Your task to perform on an android device: stop showing notifications on the lock screen Image 0: 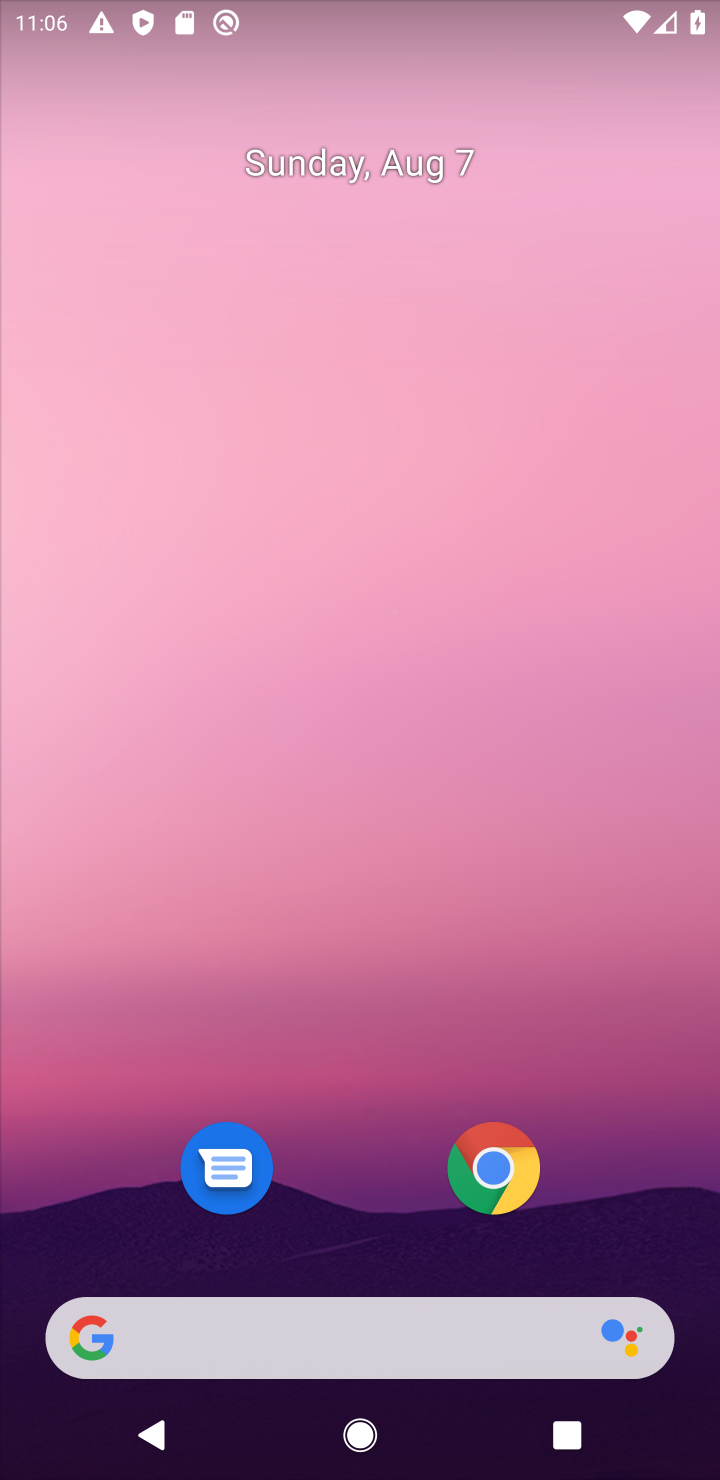
Step 0: drag from (77, 1365) to (218, 863)
Your task to perform on an android device: stop showing notifications on the lock screen Image 1: 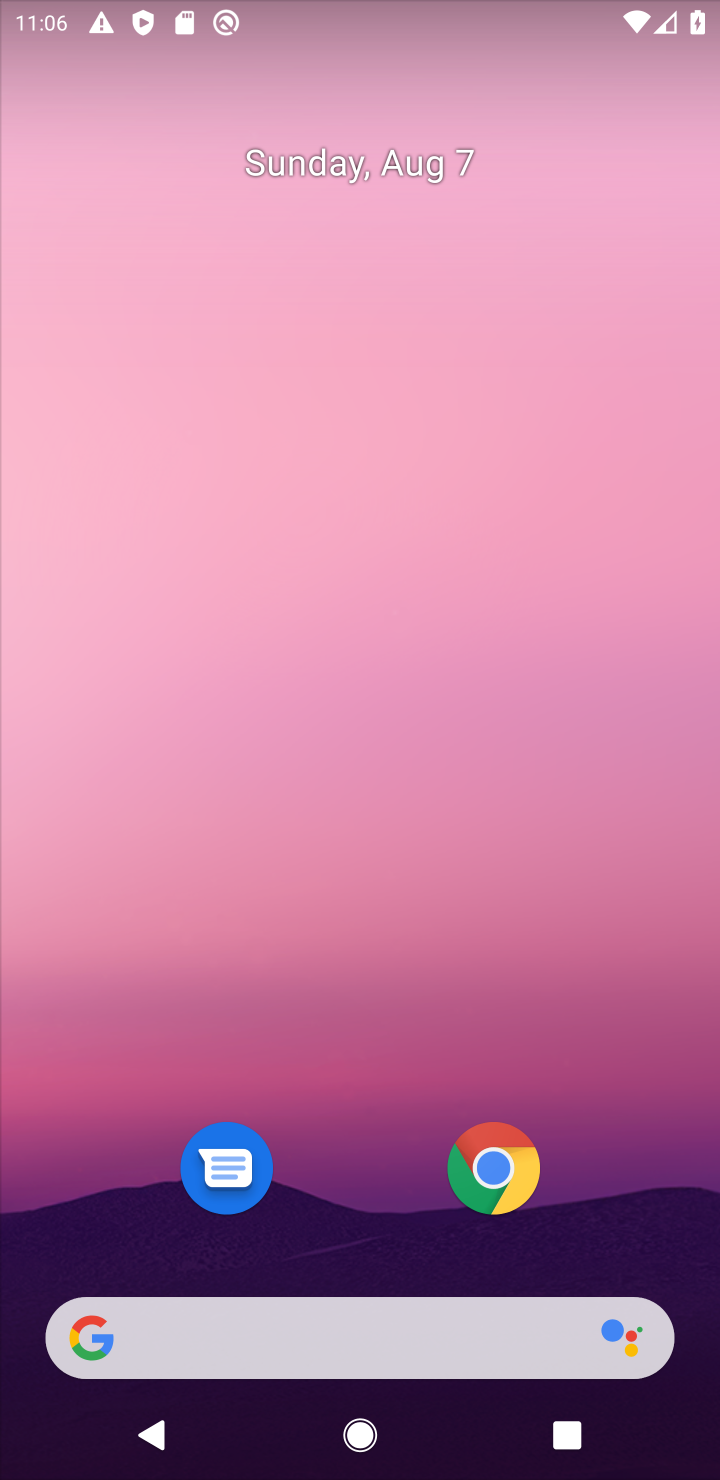
Step 1: drag from (172, 1025) to (341, 482)
Your task to perform on an android device: stop showing notifications on the lock screen Image 2: 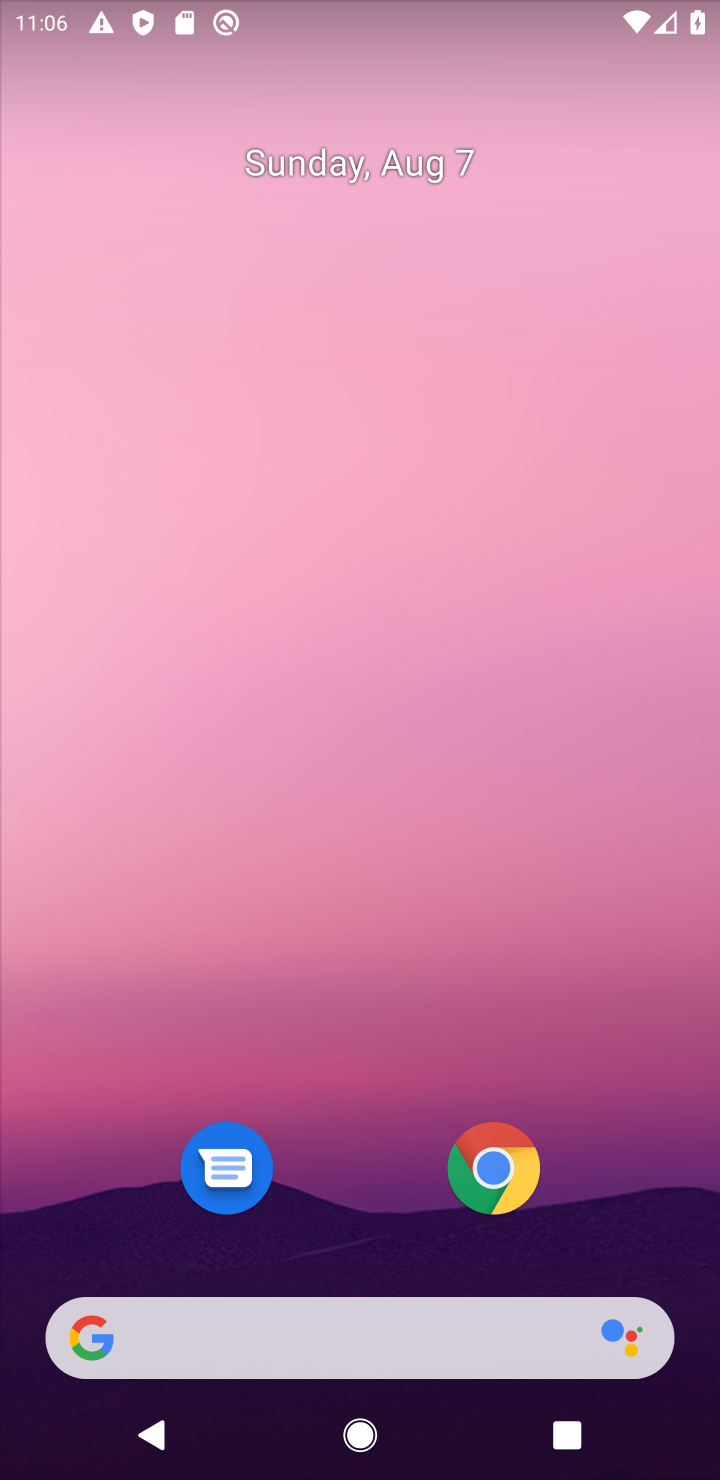
Step 2: drag from (46, 1412) to (393, 504)
Your task to perform on an android device: stop showing notifications on the lock screen Image 3: 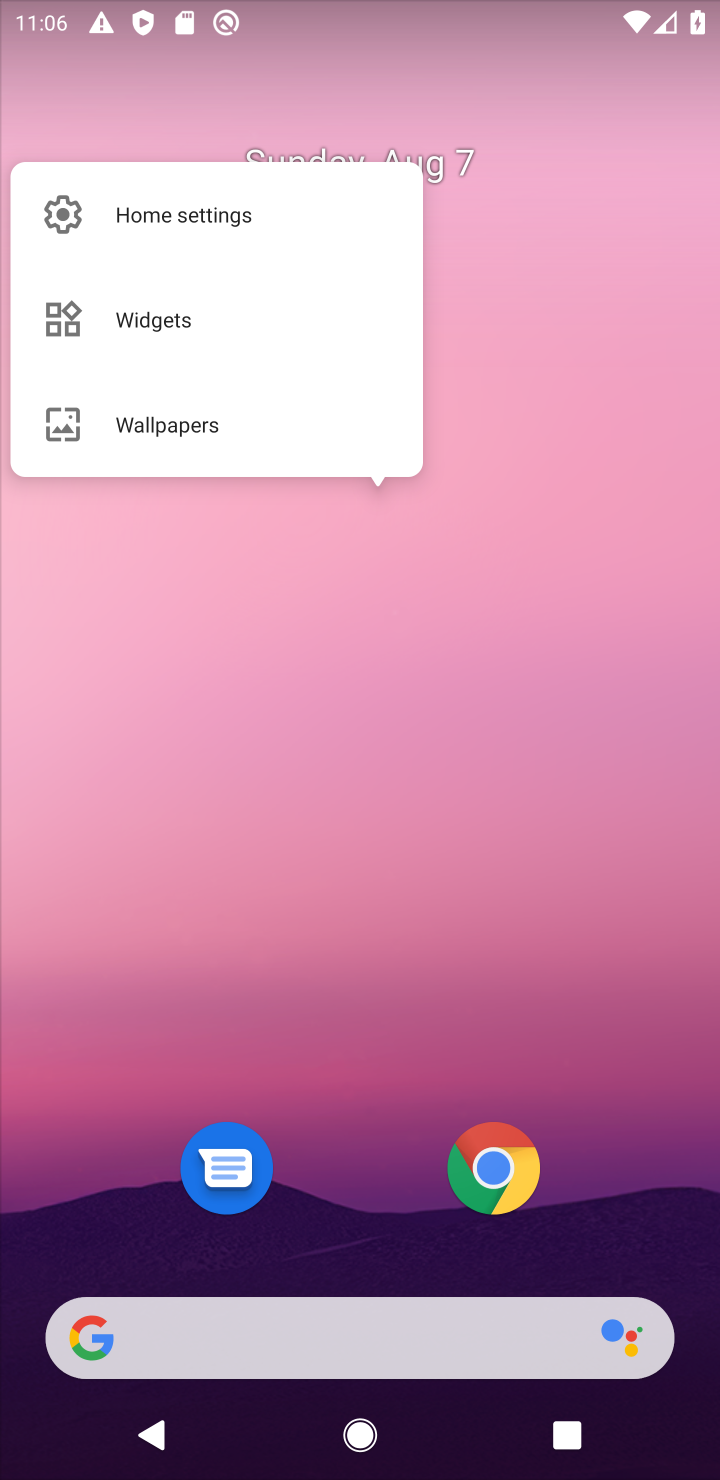
Step 3: click (366, 851)
Your task to perform on an android device: stop showing notifications on the lock screen Image 4: 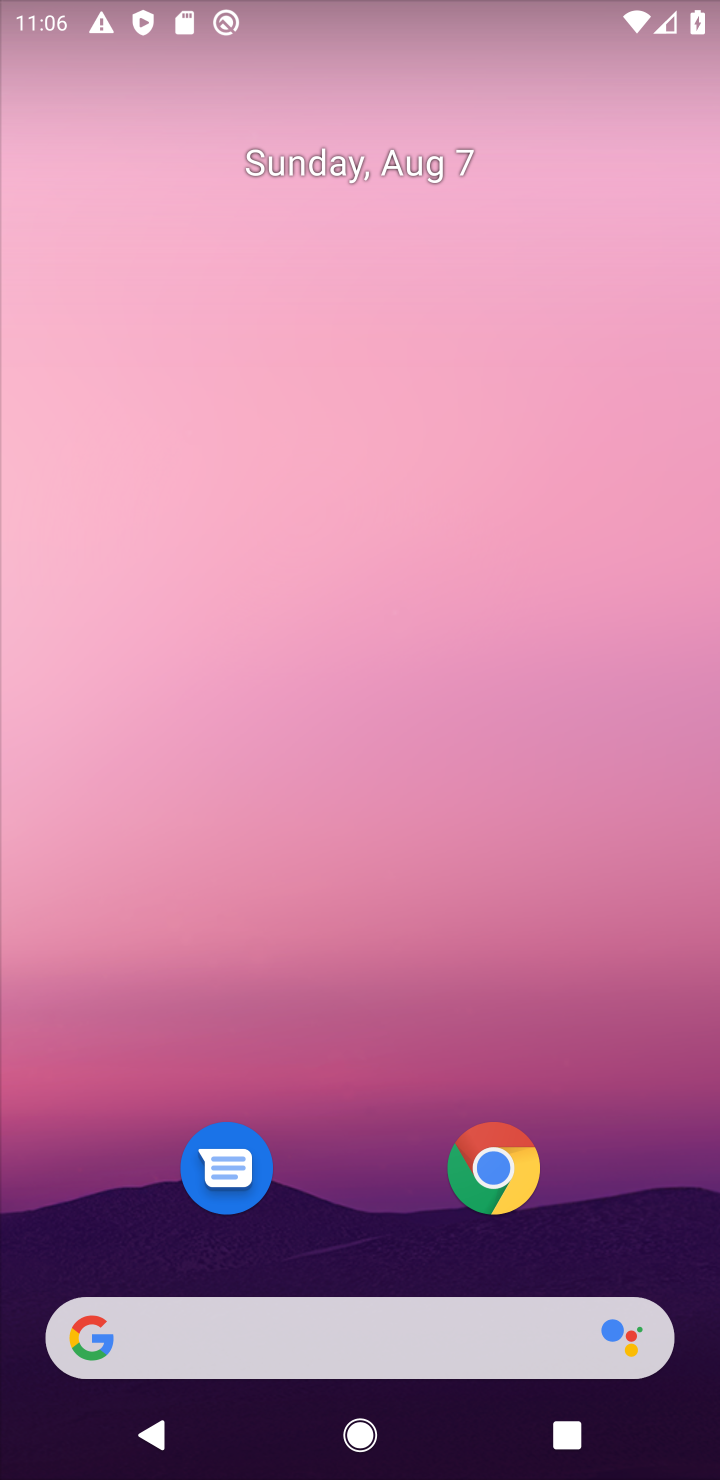
Step 4: task complete